Your task to perform on an android device: uninstall "Google Play services" Image 0: 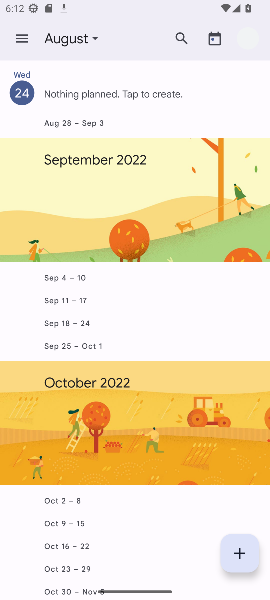
Step 0: press home button
Your task to perform on an android device: uninstall "Google Play services" Image 1: 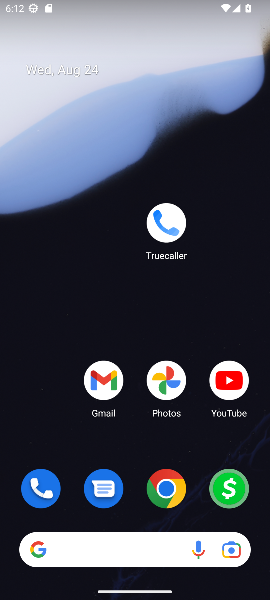
Step 1: drag from (126, 515) to (105, 77)
Your task to perform on an android device: uninstall "Google Play services" Image 2: 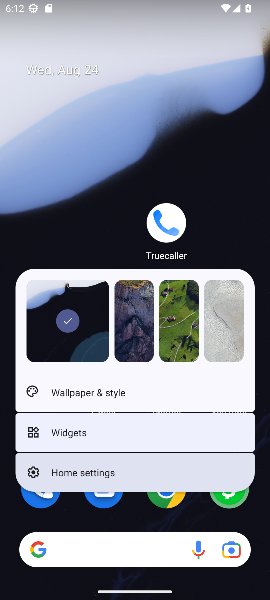
Step 2: click (193, 178)
Your task to perform on an android device: uninstall "Google Play services" Image 3: 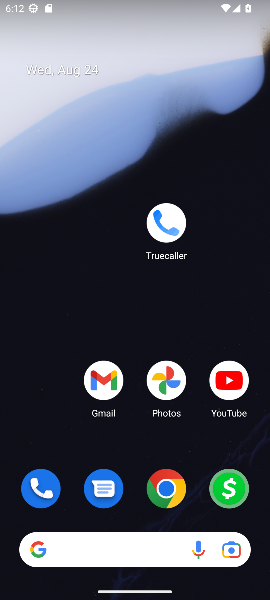
Step 3: drag from (130, 521) to (140, 113)
Your task to perform on an android device: uninstall "Google Play services" Image 4: 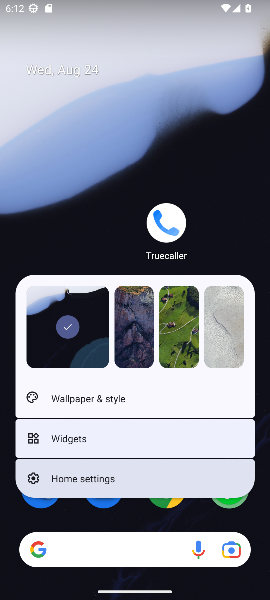
Step 4: click (171, 115)
Your task to perform on an android device: uninstall "Google Play services" Image 5: 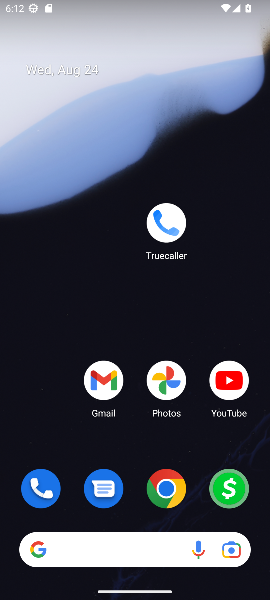
Step 5: drag from (134, 509) to (131, 34)
Your task to perform on an android device: uninstall "Google Play services" Image 6: 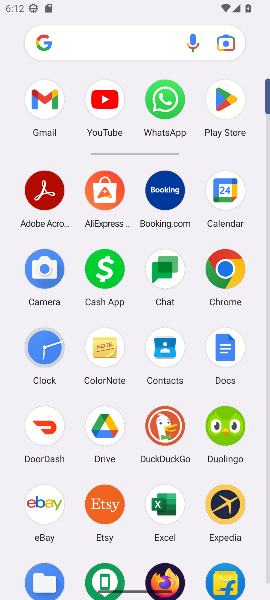
Step 6: click (231, 111)
Your task to perform on an android device: uninstall "Google Play services" Image 7: 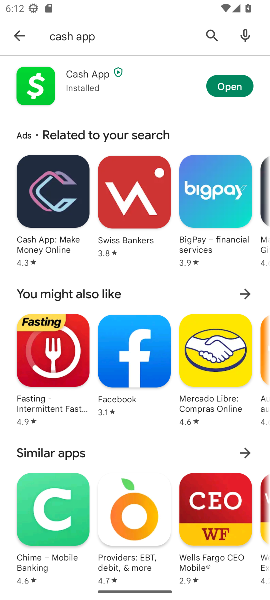
Step 7: click (212, 36)
Your task to perform on an android device: uninstall "Google Play services" Image 8: 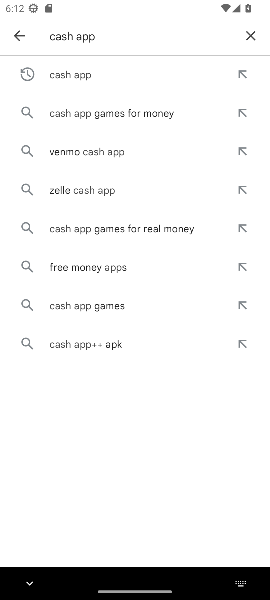
Step 8: click (246, 37)
Your task to perform on an android device: uninstall "Google Play services" Image 9: 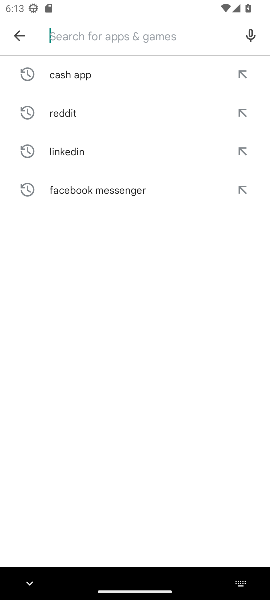
Step 9: type "google play servies"
Your task to perform on an android device: uninstall "Google Play services" Image 10: 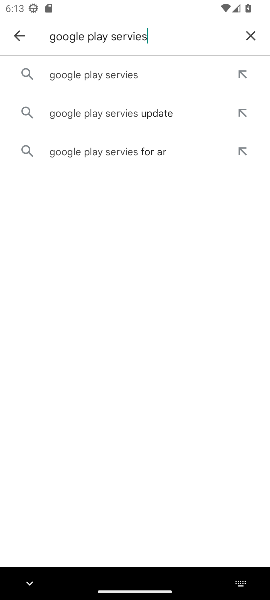
Step 10: click (129, 79)
Your task to perform on an android device: uninstall "Google Play services" Image 11: 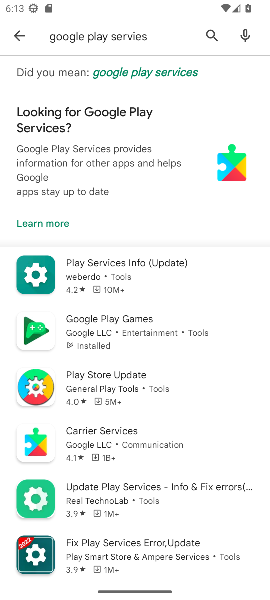
Step 11: click (137, 407)
Your task to perform on an android device: uninstall "Google Play services" Image 12: 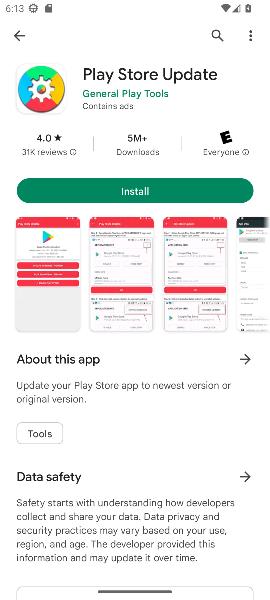
Step 12: click (185, 180)
Your task to perform on an android device: uninstall "Google Play services" Image 13: 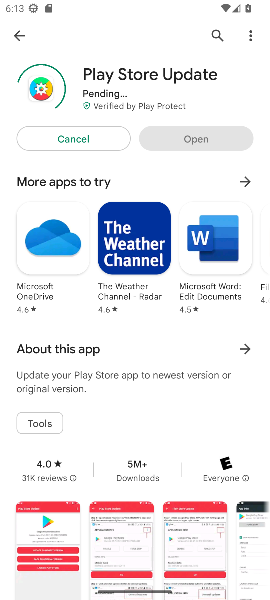
Step 13: task complete